Your task to perform on an android device: Go to privacy settings Image 0: 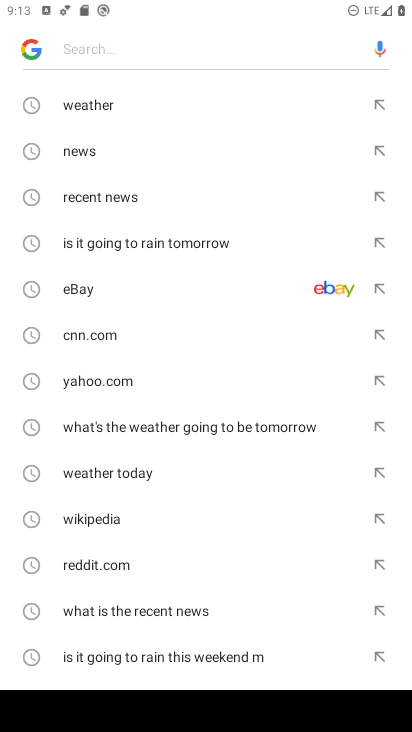
Step 0: press home button
Your task to perform on an android device: Go to privacy settings Image 1: 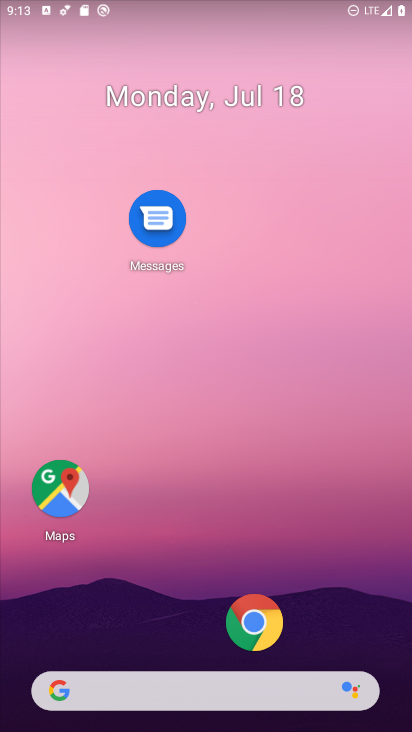
Step 1: drag from (200, 618) to (319, 49)
Your task to perform on an android device: Go to privacy settings Image 2: 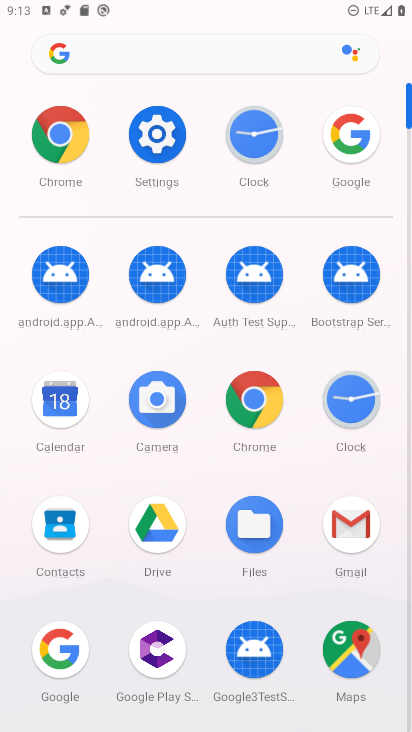
Step 2: click (173, 141)
Your task to perform on an android device: Go to privacy settings Image 3: 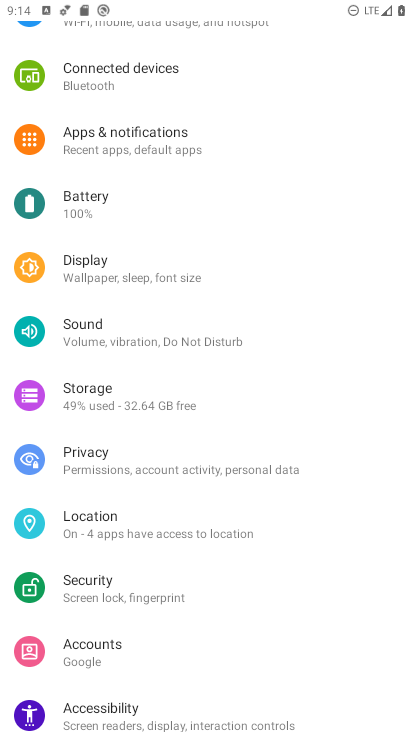
Step 3: click (138, 459)
Your task to perform on an android device: Go to privacy settings Image 4: 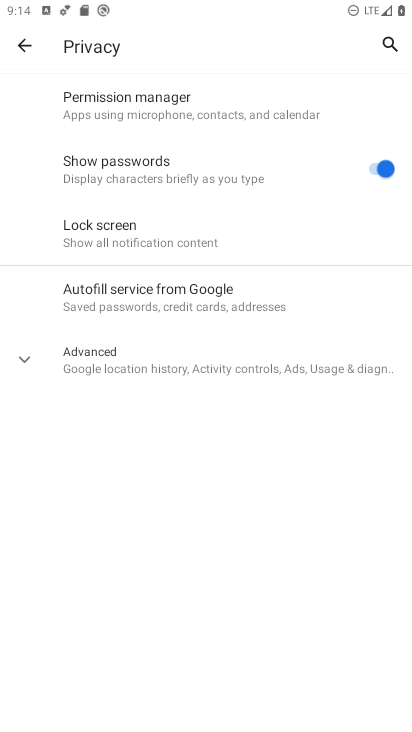
Step 4: task complete